Your task to perform on an android device: What's the weather? Image 0: 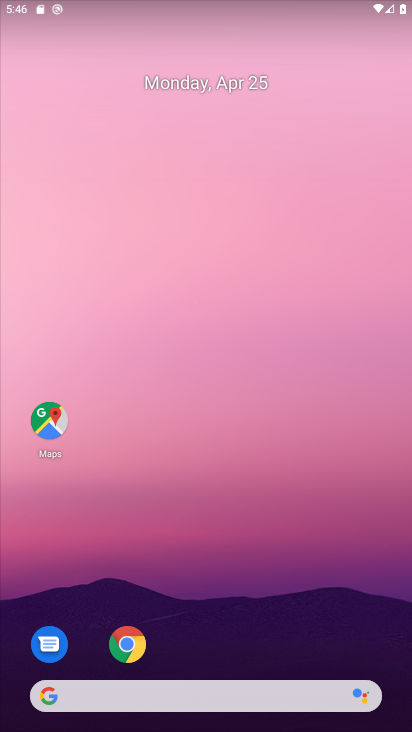
Step 0: drag from (241, 598) to (187, 56)
Your task to perform on an android device: What's the weather? Image 1: 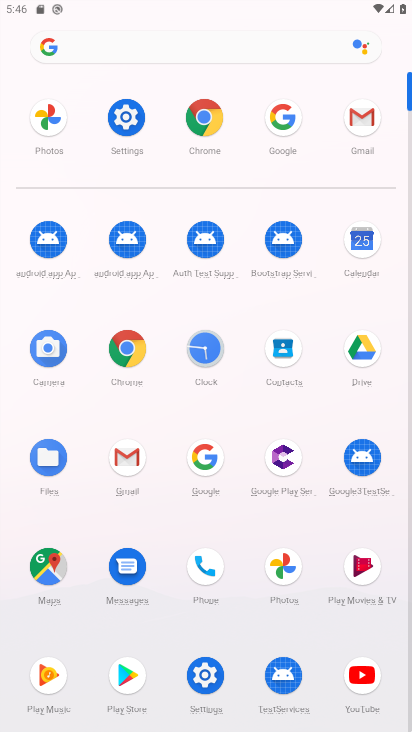
Step 1: click (204, 453)
Your task to perform on an android device: What's the weather? Image 2: 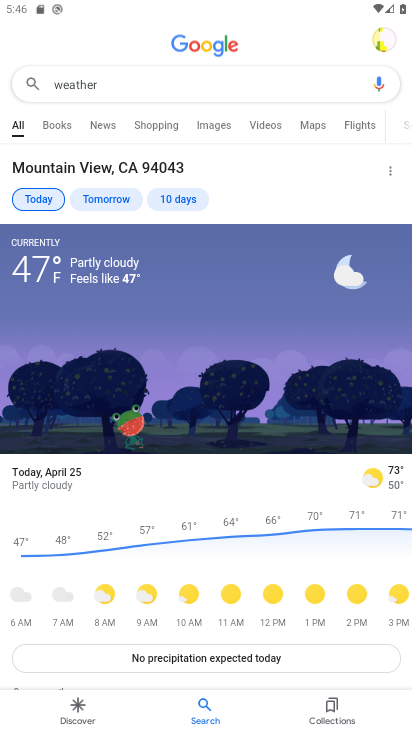
Step 2: task complete